Your task to perform on an android device: change notifications settings Image 0: 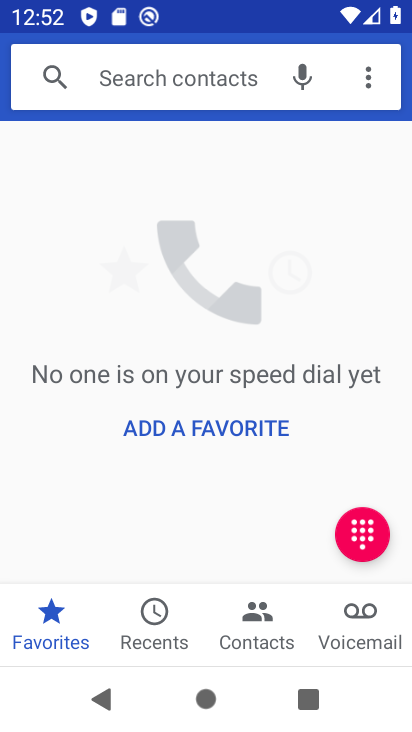
Step 0: press home button
Your task to perform on an android device: change notifications settings Image 1: 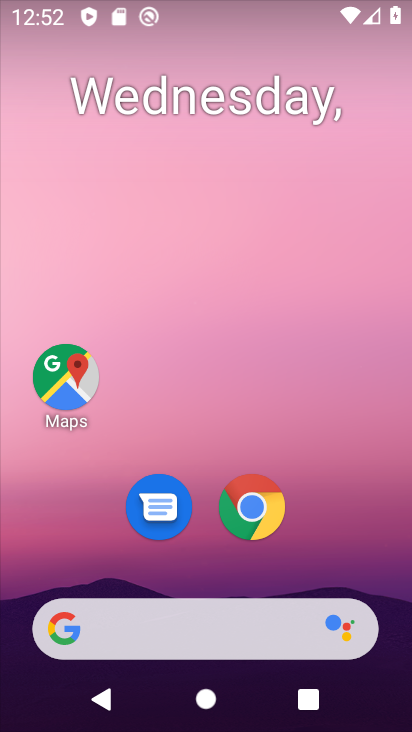
Step 1: drag from (378, 455) to (385, 143)
Your task to perform on an android device: change notifications settings Image 2: 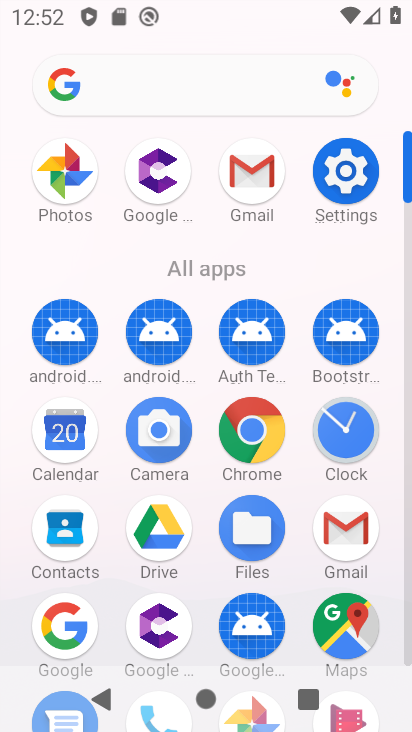
Step 2: click (368, 193)
Your task to perform on an android device: change notifications settings Image 3: 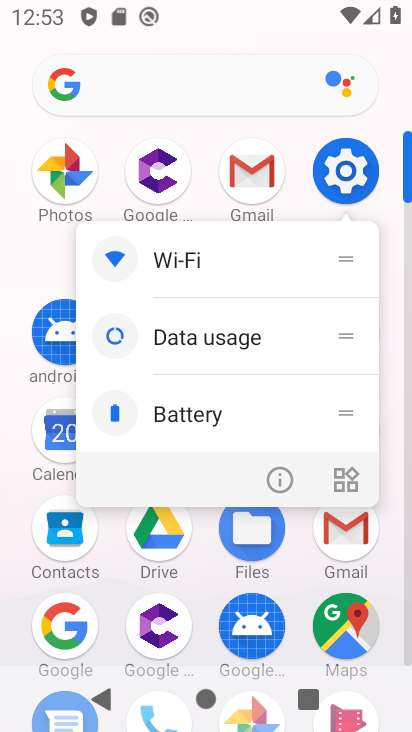
Step 3: click (368, 193)
Your task to perform on an android device: change notifications settings Image 4: 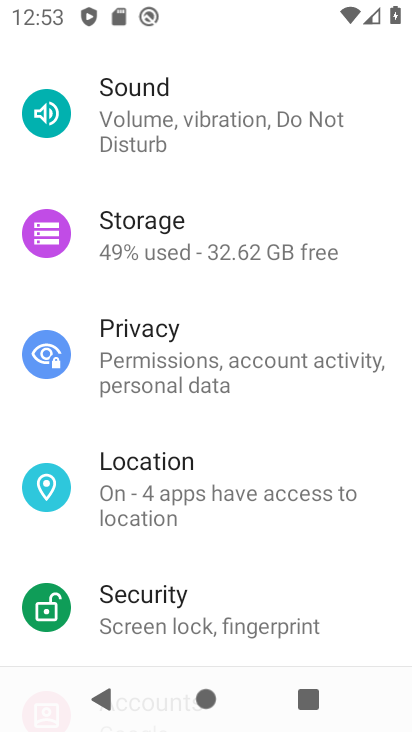
Step 4: drag from (213, 235) to (218, 480)
Your task to perform on an android device: change notifications settings Image 5: 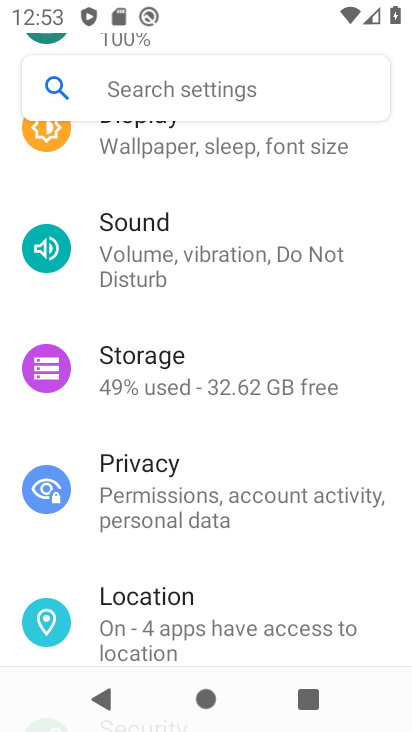
Step 5: drag from (281, 278) to (250, 526)
Your task to perform on an android device: change notifications settings Image 6: 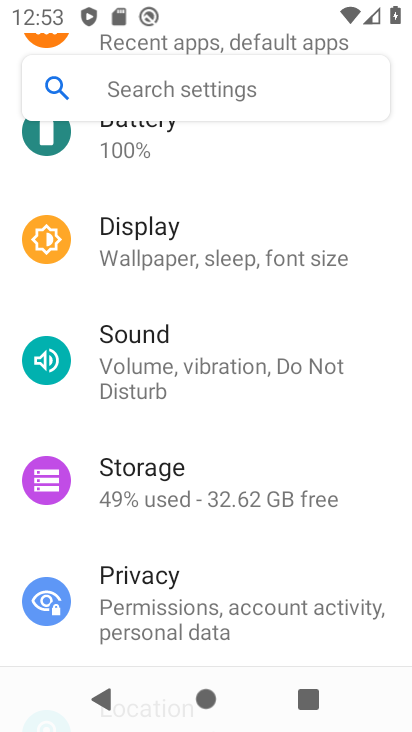
Step 6: drag from (294, 231) to (285, 528)
Your task to perform on an android device: change notifications settings Image 7: 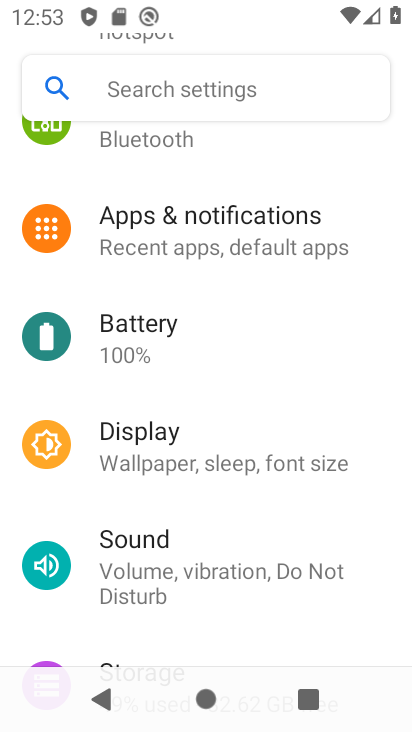
Step 7: drag from (347, 274) to (351, 529)
Your task to perform on an android device: change notifications settings Image 8: 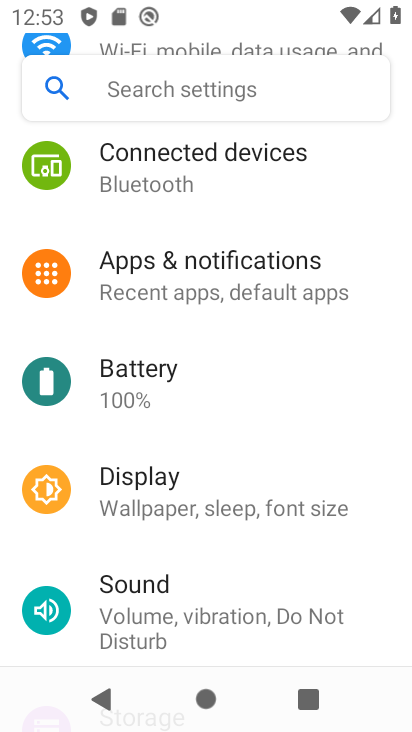
Step 8: drag from (239, 250) to (222, 549)
Your task to perform on an android device: change notifications settings Image 9: 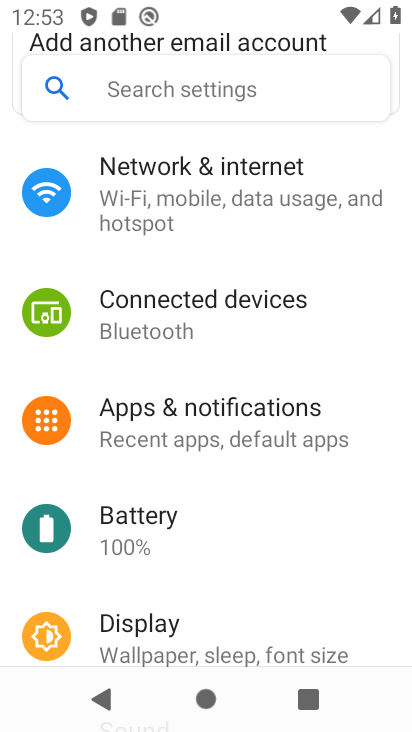
Step 9: click (268, 403)
Your task to perform on an android device: change notifications settings Image 10: 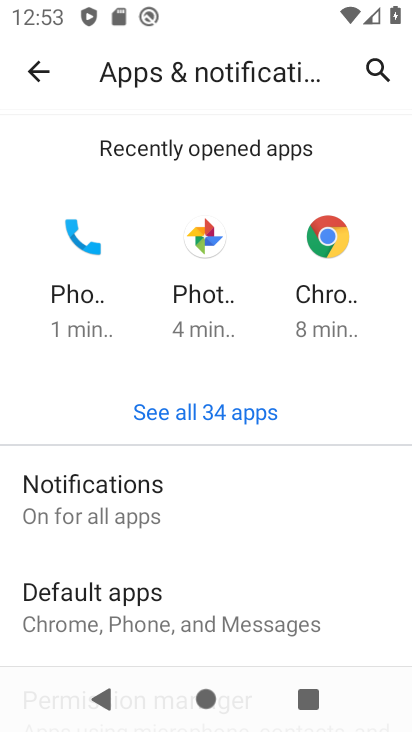
Step 10: click (111, 504)
Your task to perform on an android device: change notifications settings Image 11: 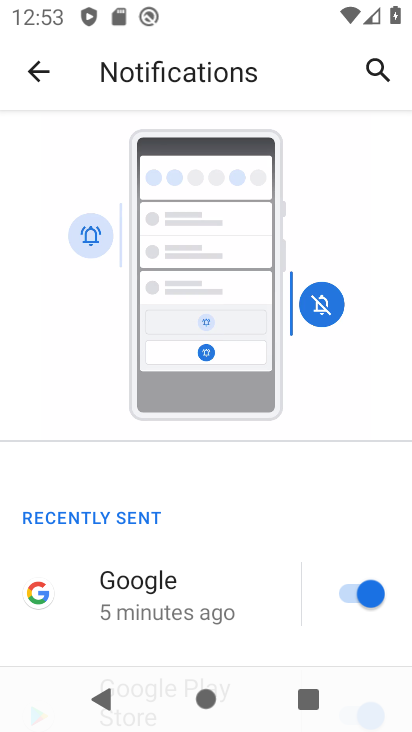
Step 11: drag from (199, 542) to (230, 226)
Your task to perform on an android device: change notifications settings Image 12: 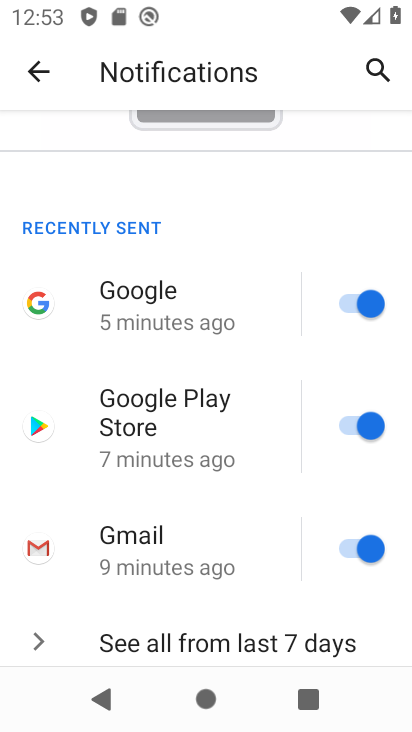
Step 12: click (337, 312)
Your task to perform on an android device: change notifications settings Image 13: 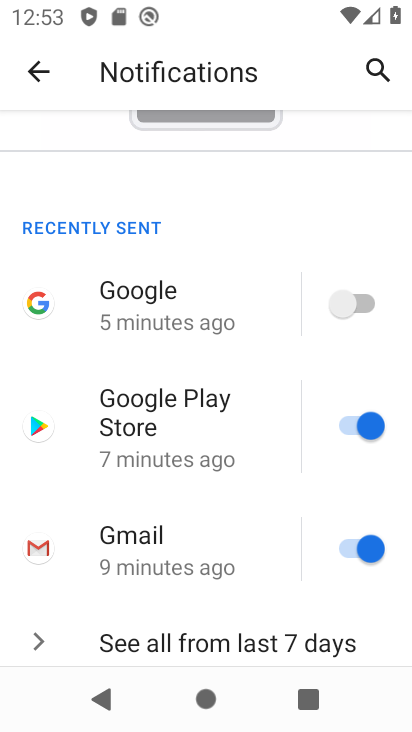
Step 13: task complete